Your task to perform on an android device: change timer sound Image 0: 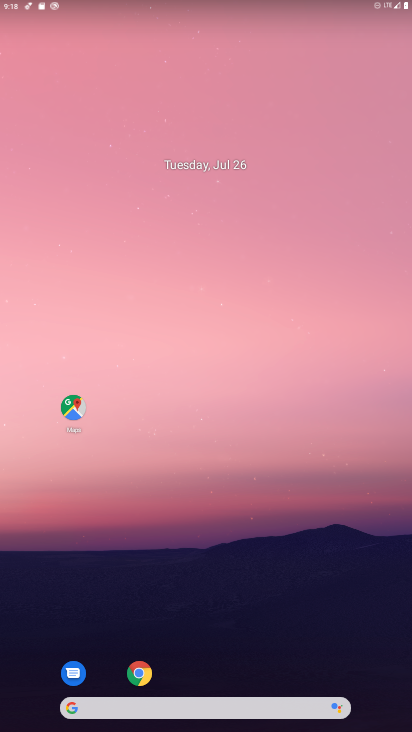
Step 0: drag from (228, 682) to (225, 12)
Your task to perform on an android device: change timer sound Image 1: 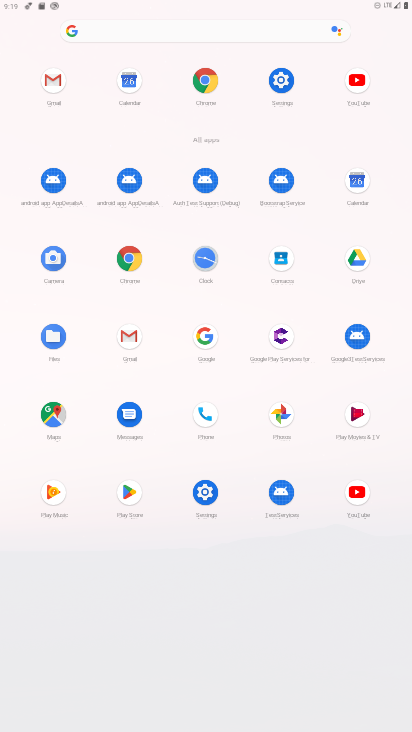
Step 1: click (206, 264)
Your task to perform on an android device: change timer sound Image 2: 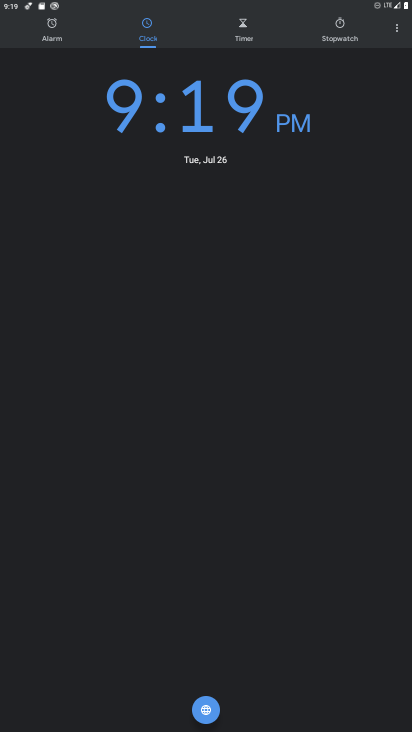
Step 2: click (398, 30)
Your task to perform on an android device: change timer sound Image 3: 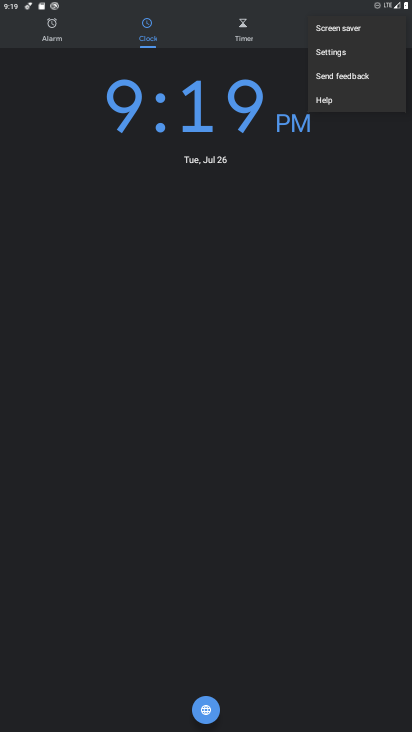
Step 3: click (334, 58)
Your task to perform on an android device: change timer sound Image 4: 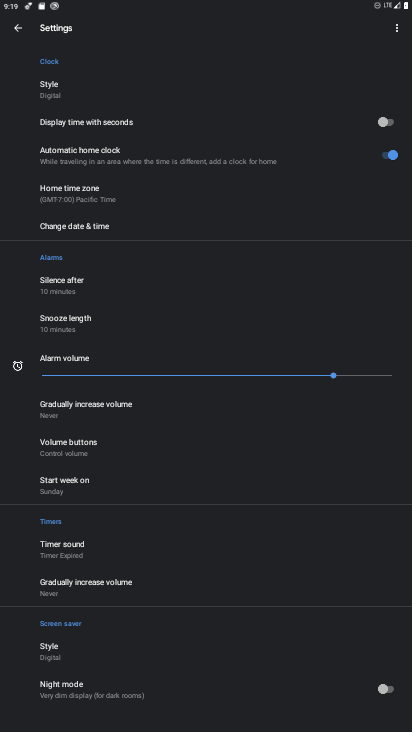
Step 4: click (57, 559)
Your task to perform on an android device: change timer sound Image 5: 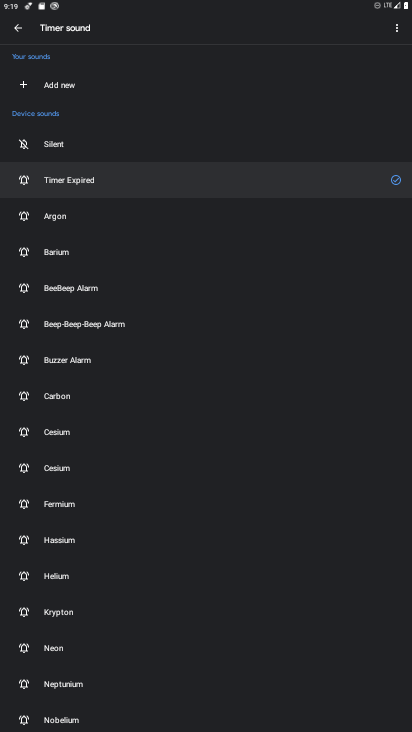
Step 5: click (47, 253)
Your task to perform on an android device: change timer sound Image 6: 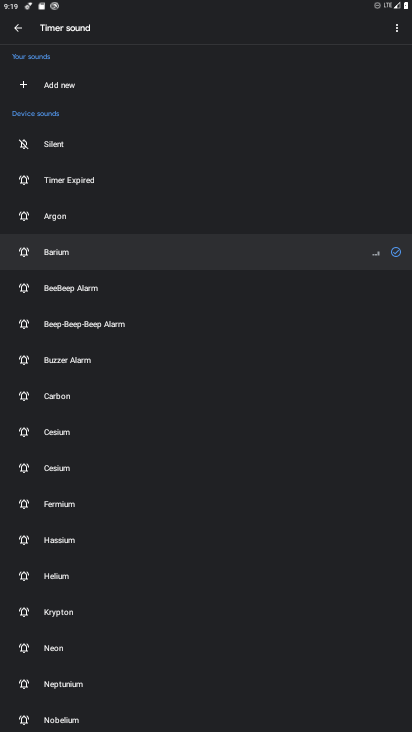
Step 6: task complete